Your task to perform on an android device: Open Youtube and go to the subscriptions tab Image 0: 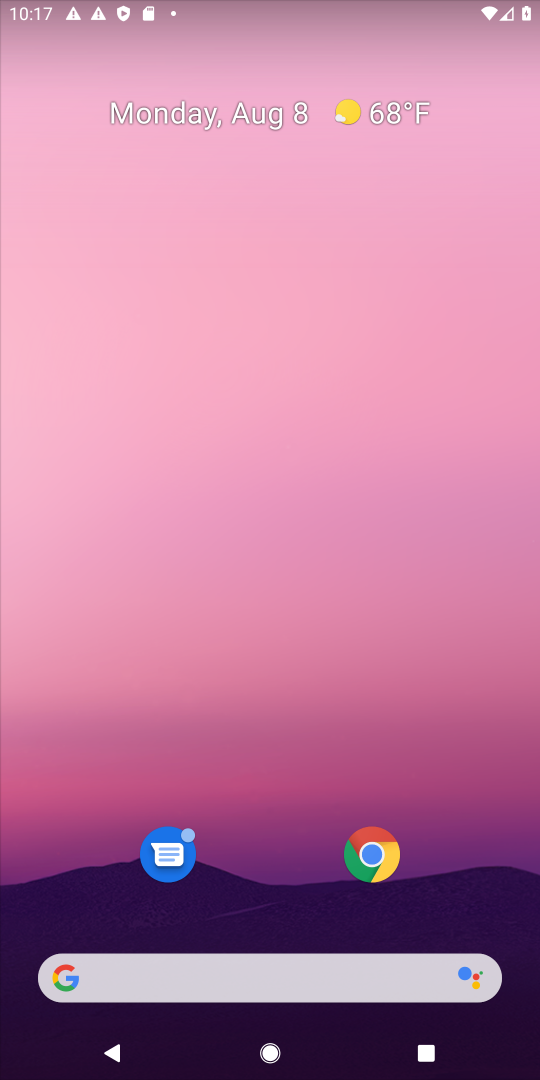
Step 0: drag from (287, 769) to (320, 133)
Your task to perform on an android device: Open Youtube and go to the subscriptions tab Image 1: 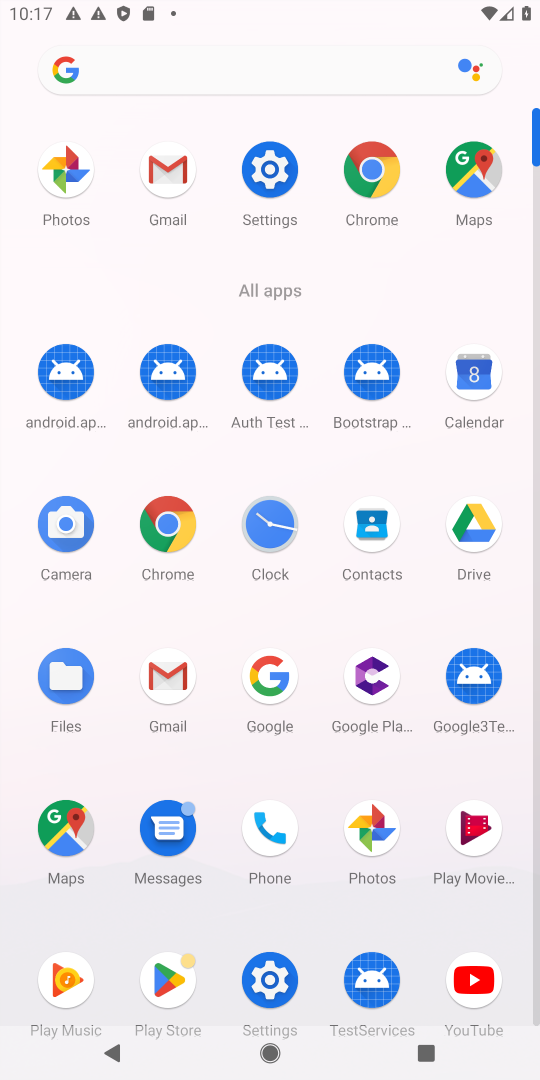
Step 1: click (476, 987)
Your task to perform on an android device: Open Youtube and go to the subscriptions tab Image 2: 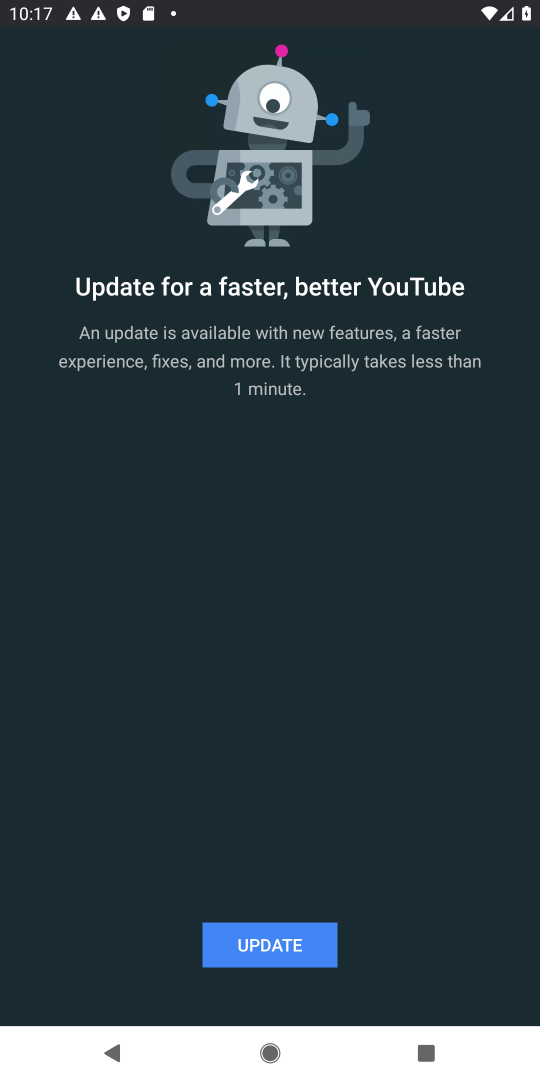
Step 2: task complete